Your task to perform on an android device: Open accessibility settings Image 0: 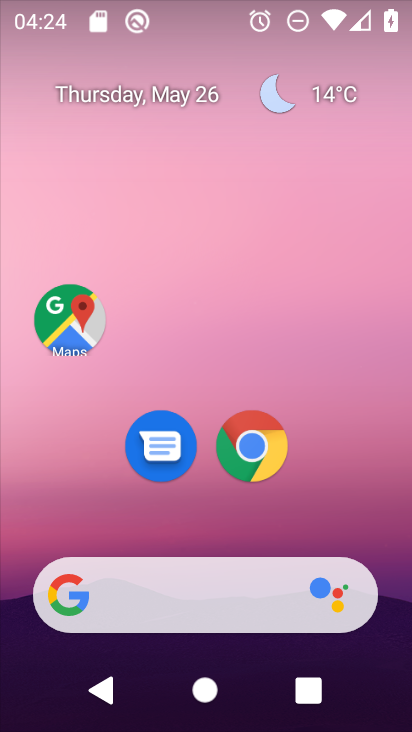
Step 0: drag from (361, 541) to (379, 1)
Your task to perform on an android device: Open accessibility settings Image 1: 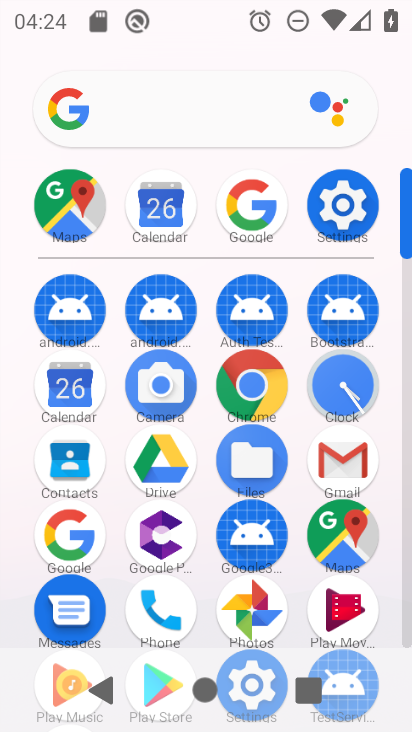
Step 1: click (346, 203)
Your task to perform on an android device: Open accessibility settings Image 2: 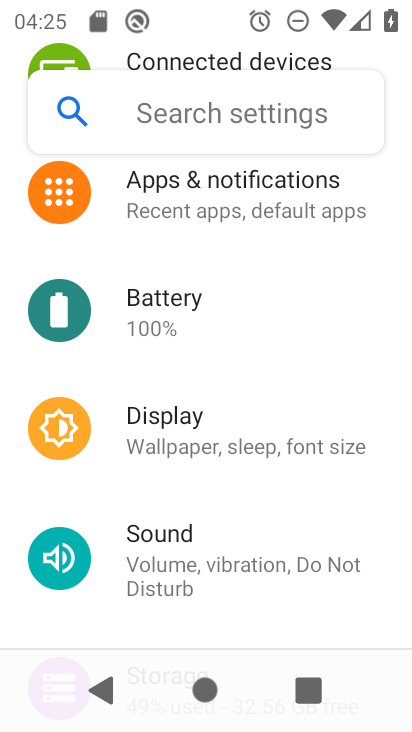
Step 2: drag from (290, 521) to (278, 89)
Your task to perform on an android device: Open accessibility settings Image 3: 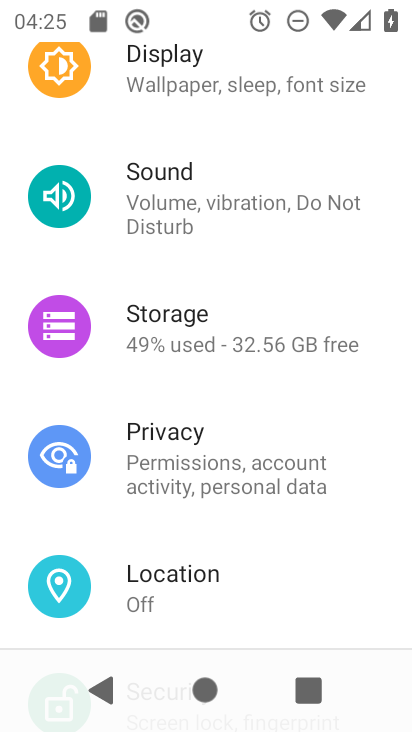
Step 3: drag from (250, 537) to (254, 135)
Your task to perform on an android device: Open accessibility settings Image 4: 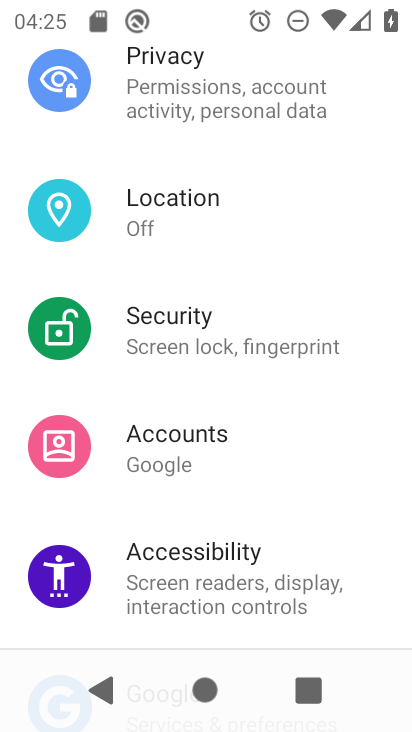
Step 4: click (181, 571)
Your task to perform on an android device: Open accessibility settings Image 5: 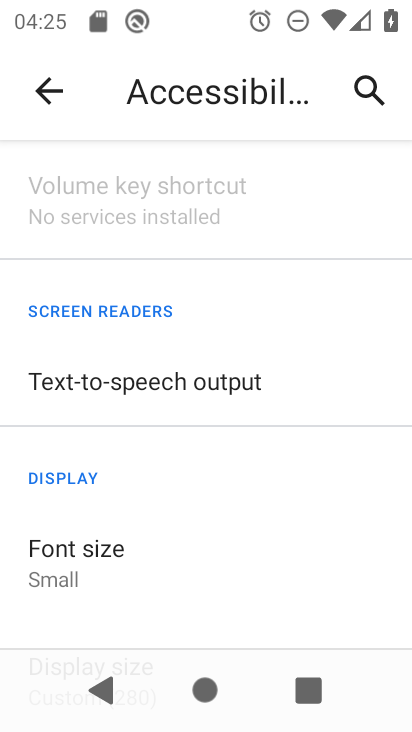
Step 5: task complete